Your task to perform on an android device: Turn off the flashlight Image 0: 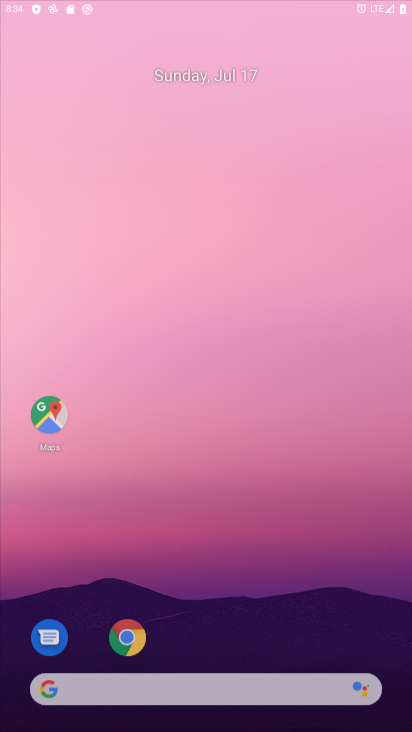
Step 0: drag from (239, 675) to (241, 221)
Your task to perform on an android device: Turn off the flashlight Image 1: 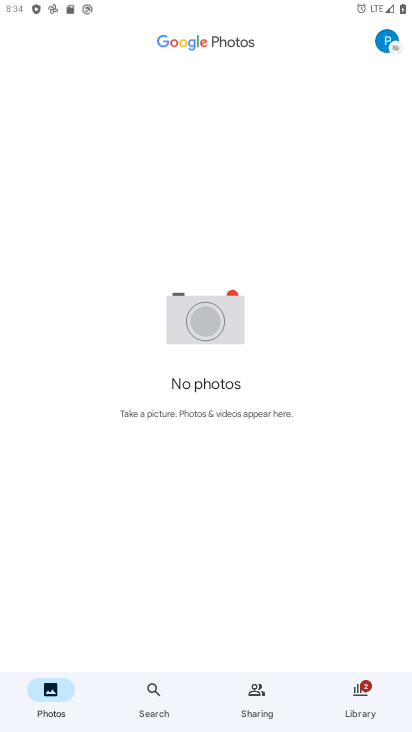
Step 1: task complete